Your task to perform on an android device: toggle translation in the chrome app Image 0: 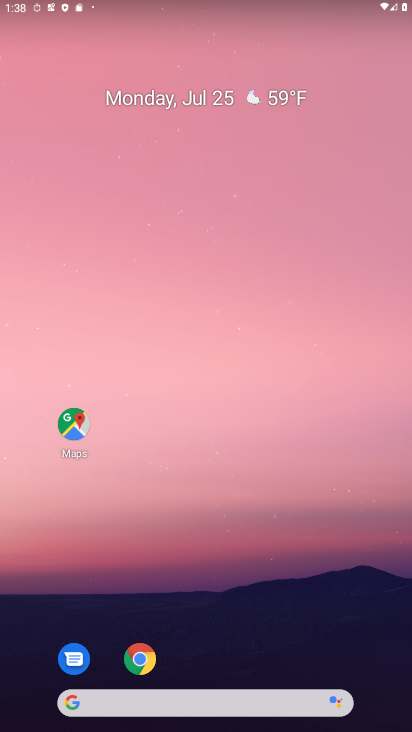
Step 0: click (142, 663)
Your task to perform on an android device: toggle translation in the chrome app Image 1: 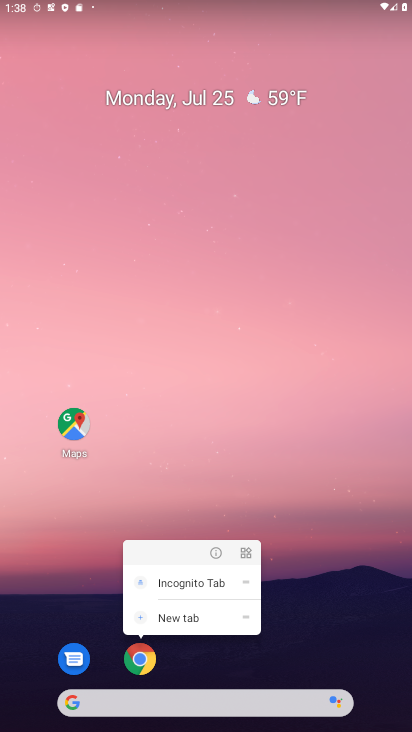
Step 1: click (142, 662)
Your task to perform on an android device: toggle translation in the chrome app Image 2: 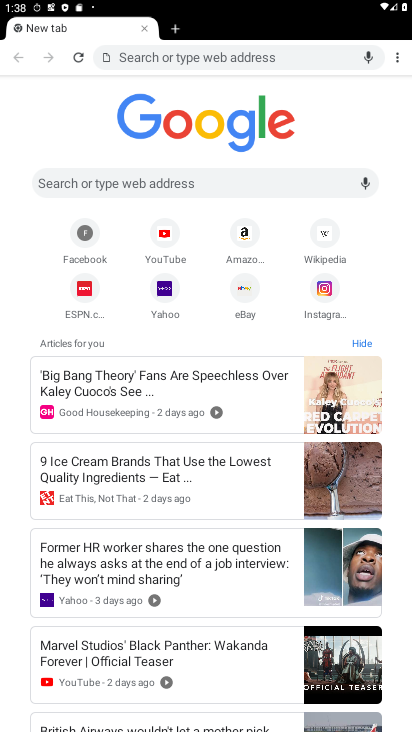
Step 2: drag from (402, 59) to (303, 263)
Your task to perform on an android device: toggle translation in the chrome app Image 3: 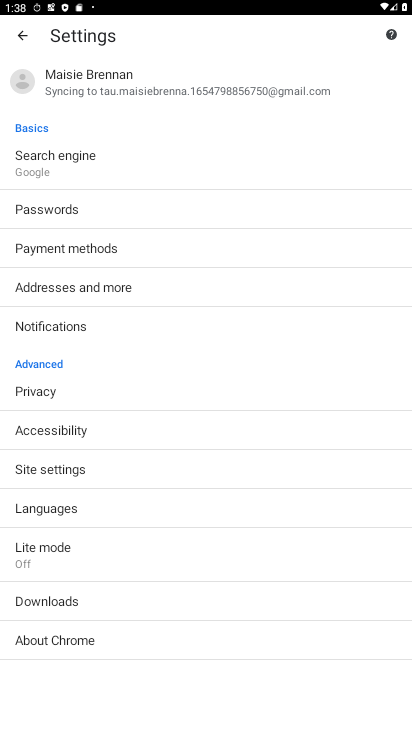
Step 3: click (76, 509)
Your task to perform on an android device: toggle translation in the chrome app Image 4: 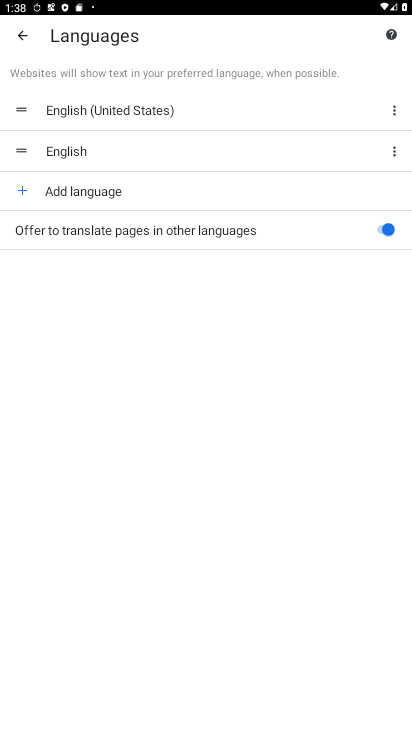
Step 4: click (395, 234)
Your task to perform on an android device: toggle translation in the chrome app Image 5: 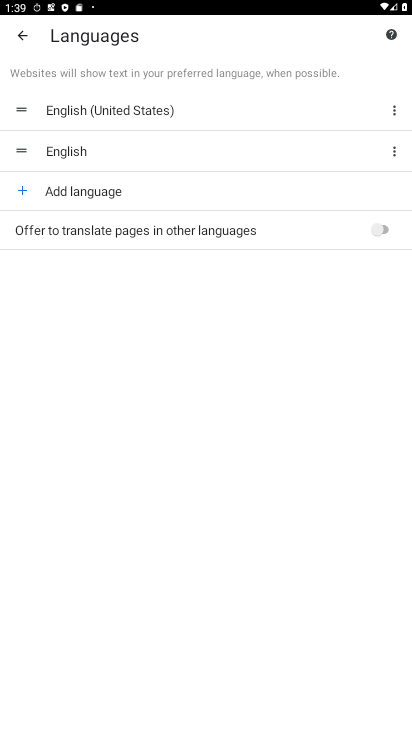
Step 5: task complete